Your task to perform on an android device: change notification settings in the gmail app Image 0: 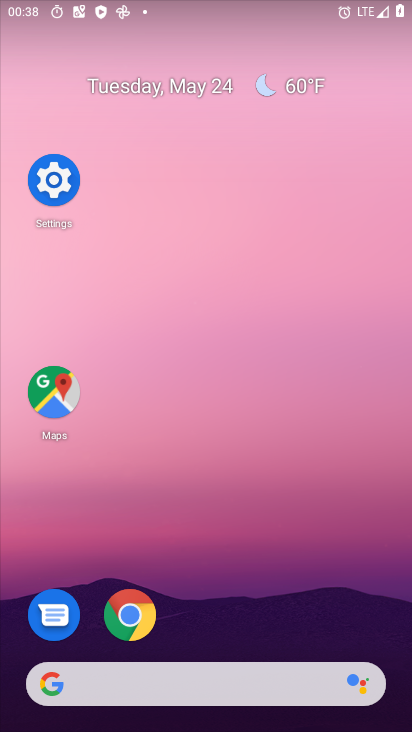
Step 0: drag from (201, 492) to (230, 113)
Your task to perform on an android device: change notification settings in the gmail app Image 1: 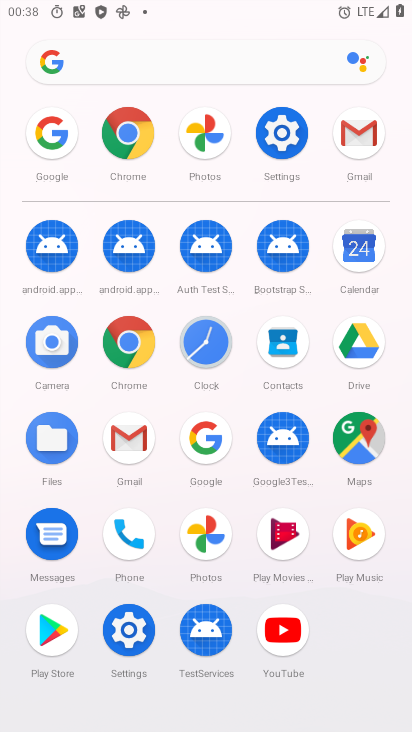
Step 1: click (359, 127)
Your task to perform on an android device: change notification settings in the gmail app Image 2: 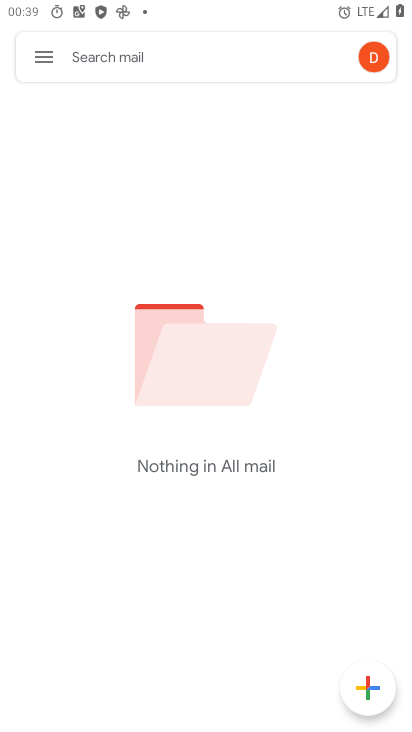
Step 2: click (50, 60)
Your task to perform on an android device: change notification settings in the gmail app Image 3: 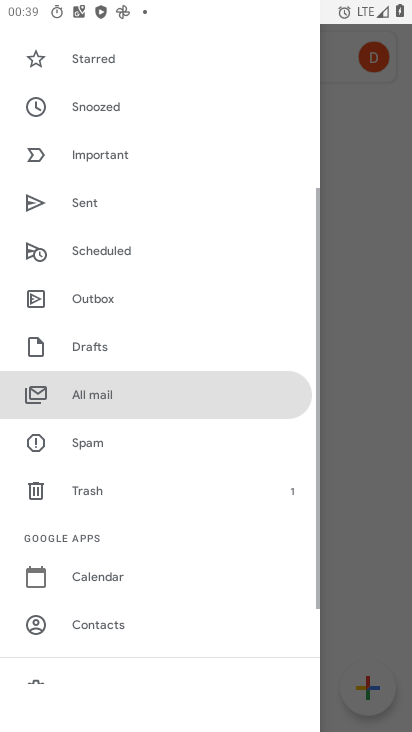
Step 3: drag from (163, 222) to (171, 116)
Your task to perform on an android device: change notification settings in the gmail app Image 4: 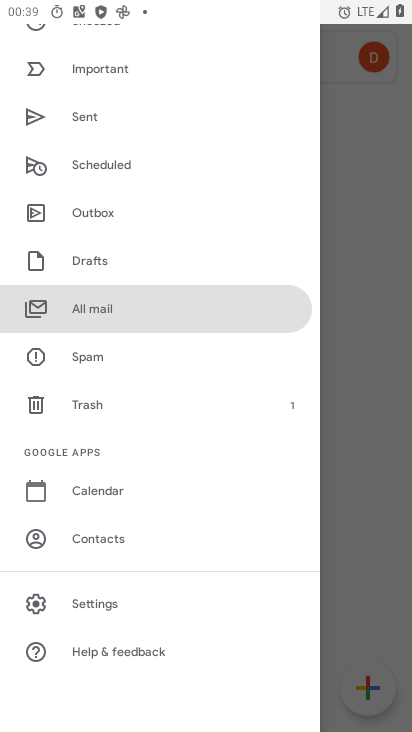
Step 4: click (115, 605)
Your task to perform on an android device: change notification settings in the gmail app Image 5: 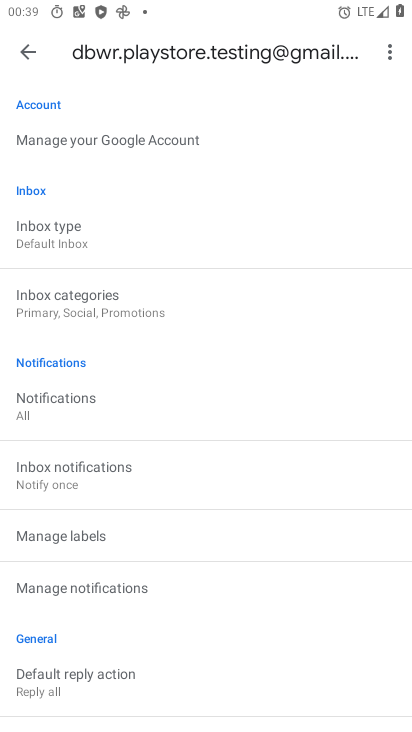
Step 5: click (88, 412)
Your task to perform on an android device: change notification settings in the gmail app Image 6: 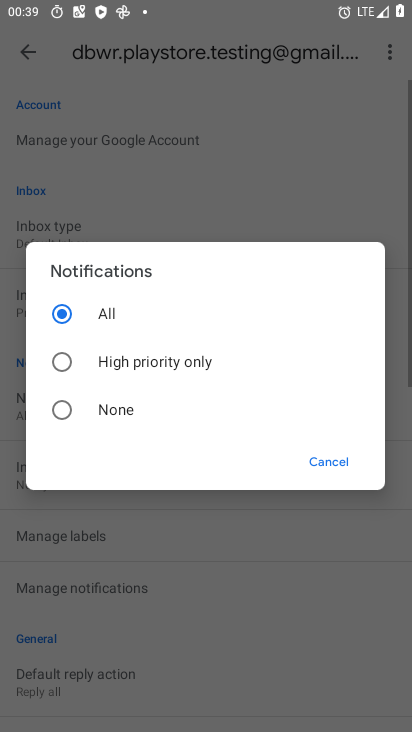
Step 6: click (70, 405)
Your task to perform on an android device: change notification settings in the gmail app Image 7: 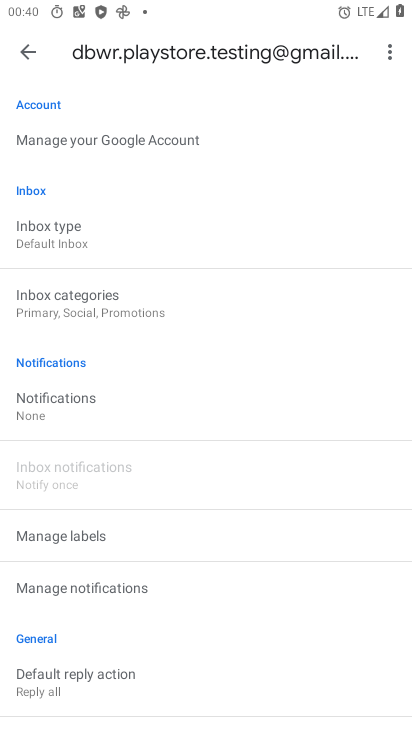
Step 7: task complete